Your task to perform on an android device: What time is it in San Francisco? Image 0: 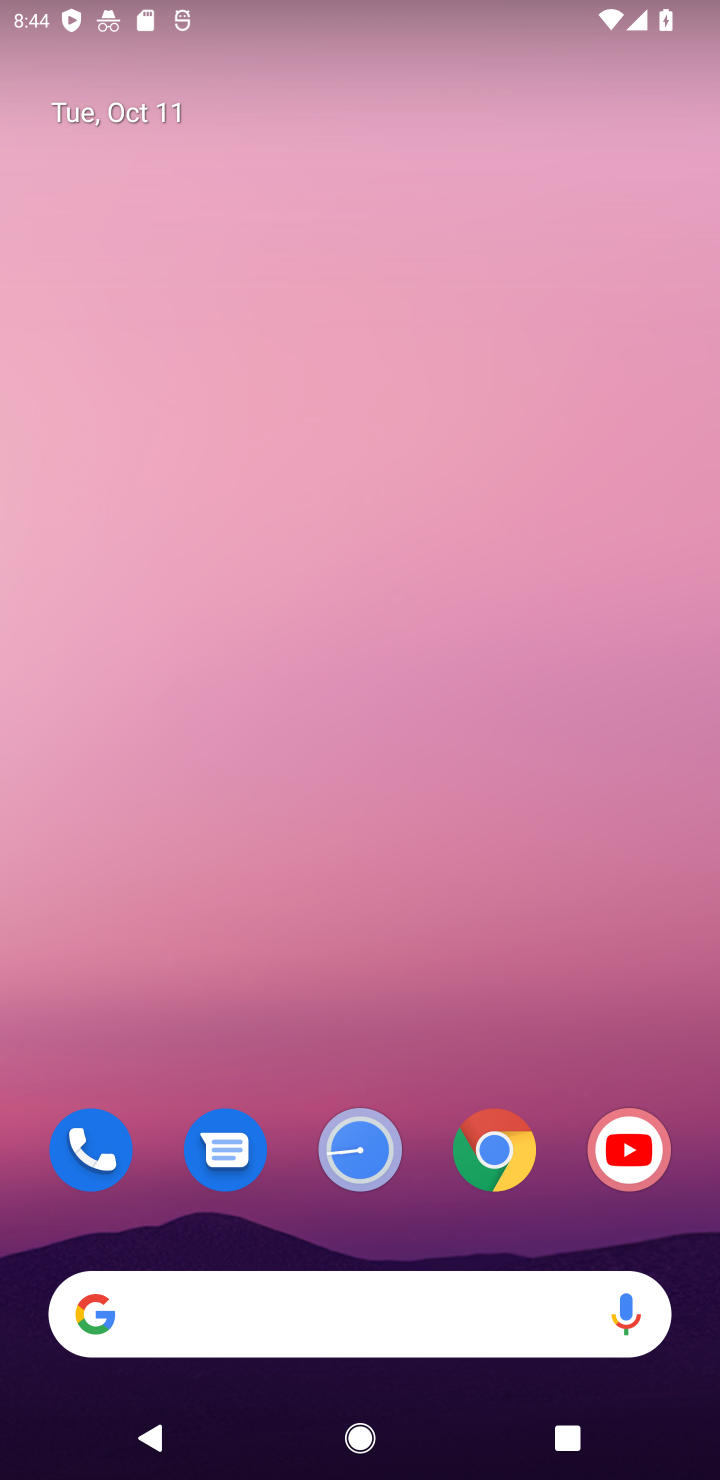
Step 0: click (496, 1153)
Your task to perform on an android device: What time is it in San Francisco? Image 1: 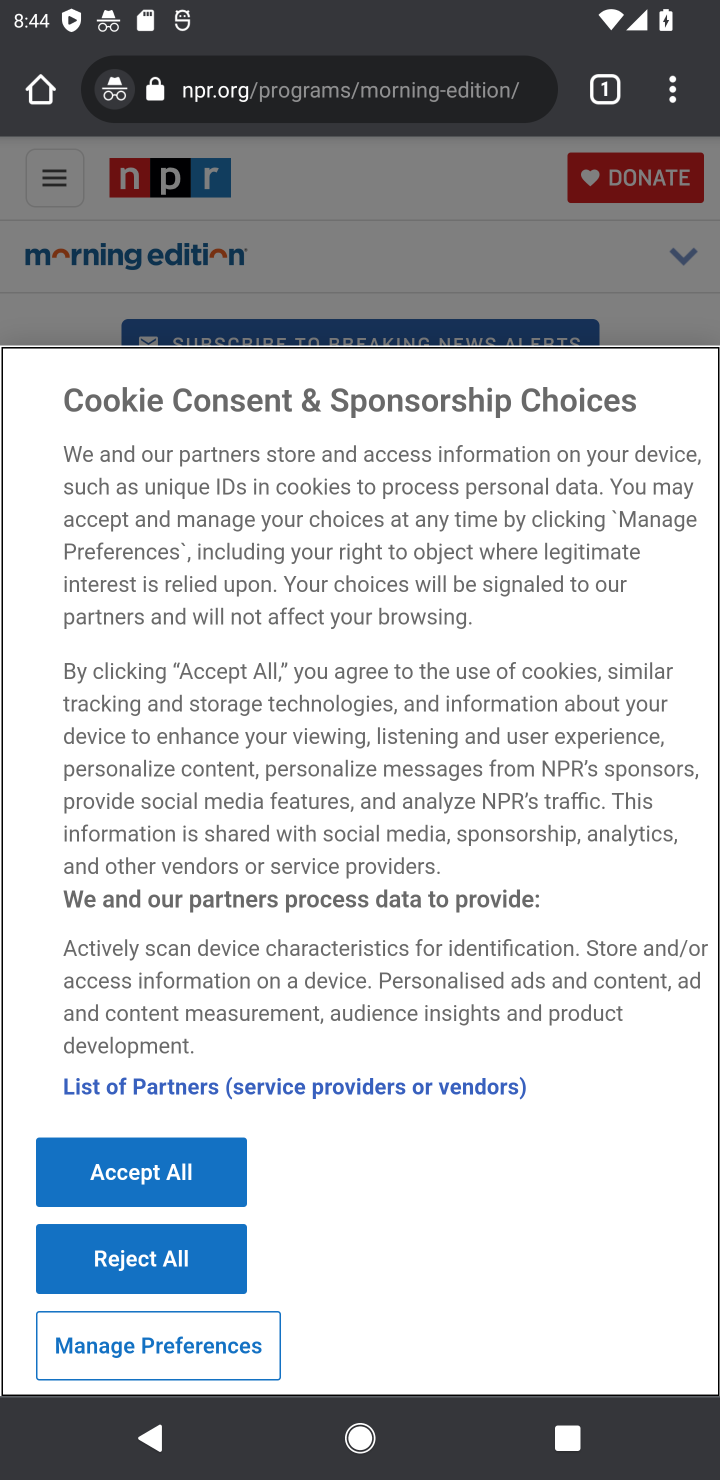
Step 1: click (304, 82)
Your task to perform on an android device: What time is it in San Francisco? Image 2: 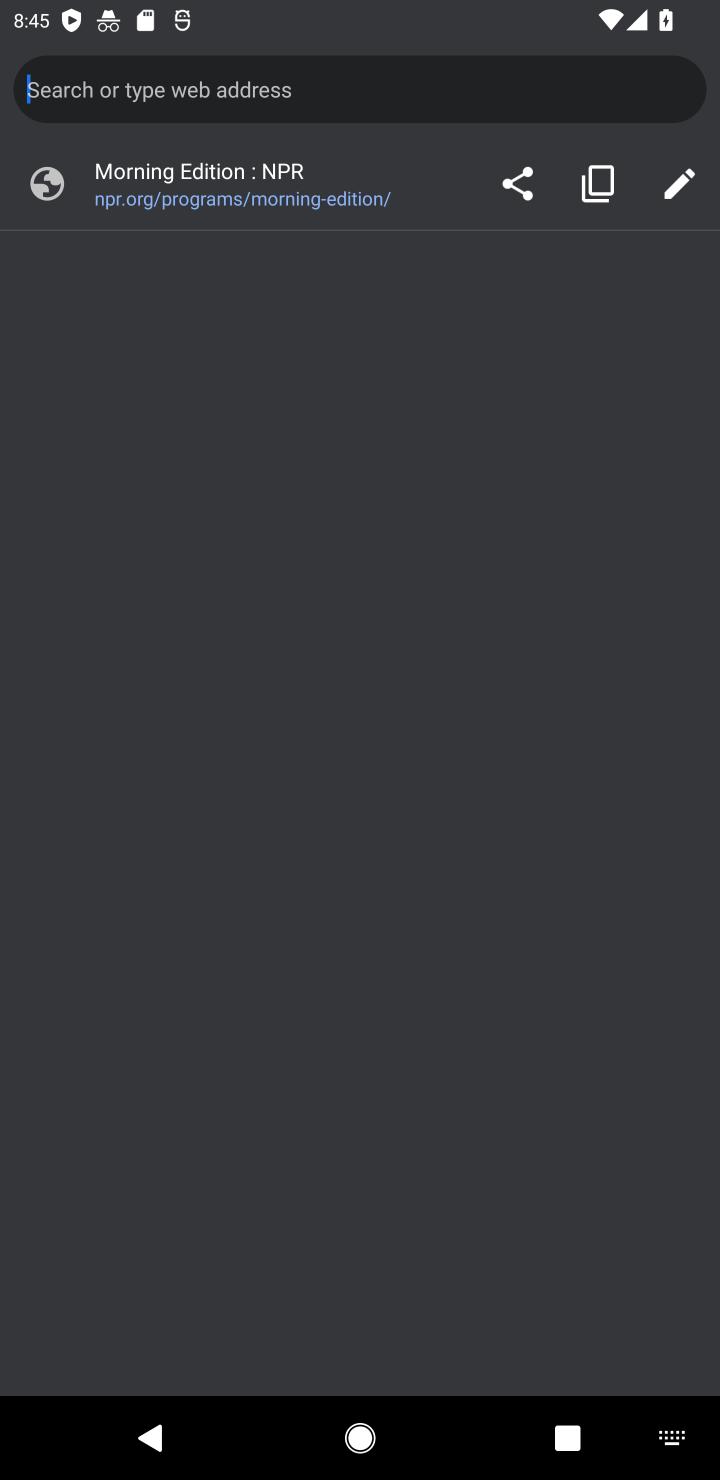
Step 2: type "time in san francisco"
Your task to perform on an android device: What time is it in San Francisco? Image 3: 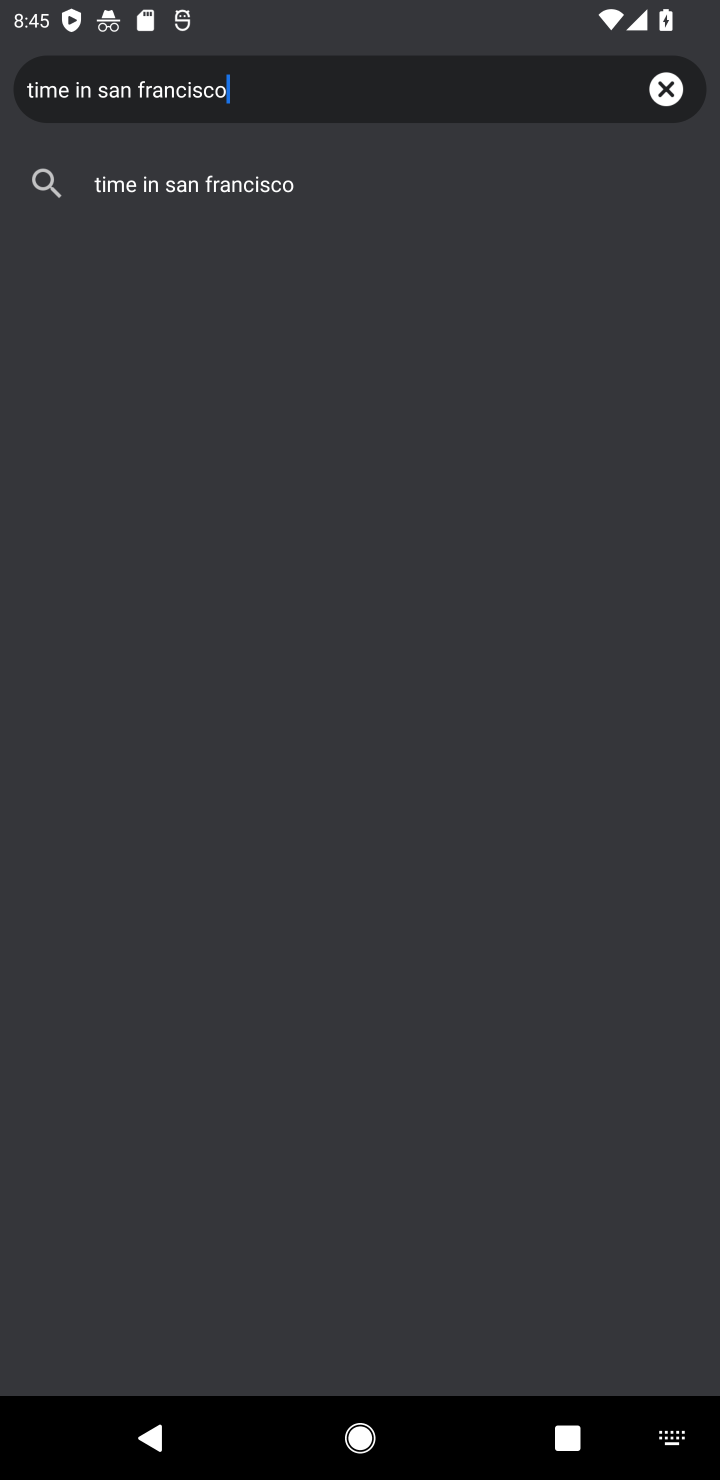
Step 3: click (190, 186)
Your task to perform on an android device: What time is it in San Francisco? Image 4: 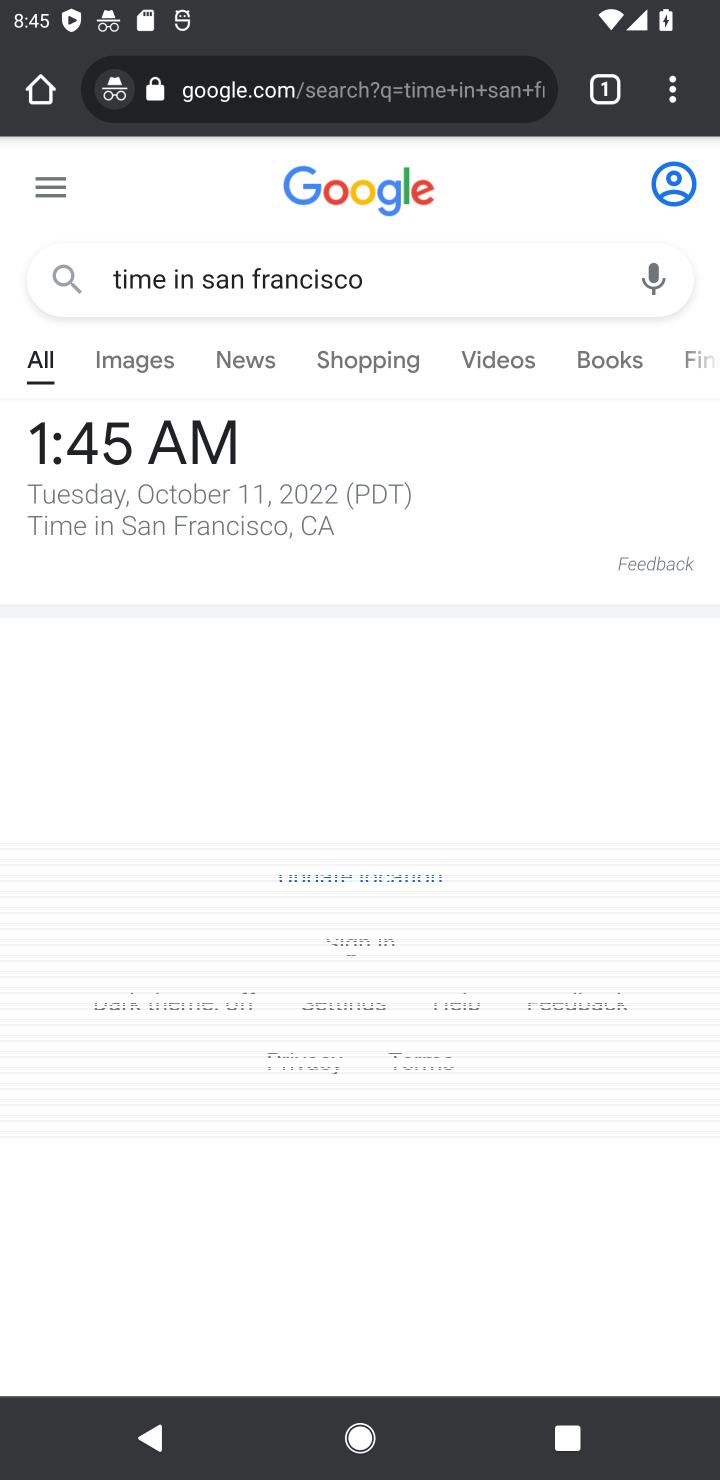
Step 4: task complete